Your task to perform on an android device: Empty the shopping cart on amazon.com. Add usb-b to the cart on amazon.com, then select checkout. Image 0: 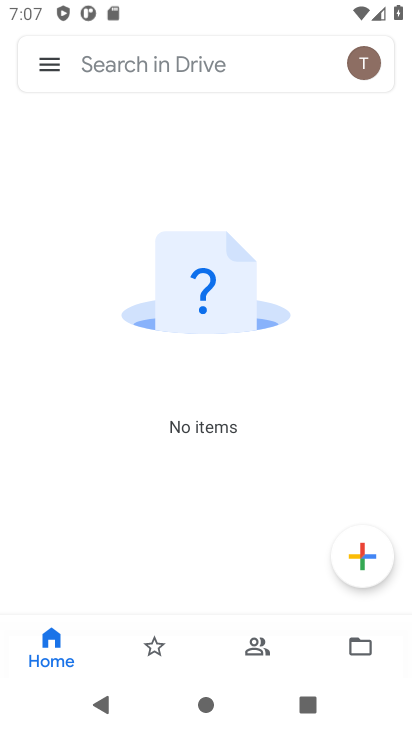
Step 0: press home button
Your task to perform on an android device: Empty the shopping cart on amazon.com. Add usb-b to the cart on amazon.com, then select checkout. Image 1: 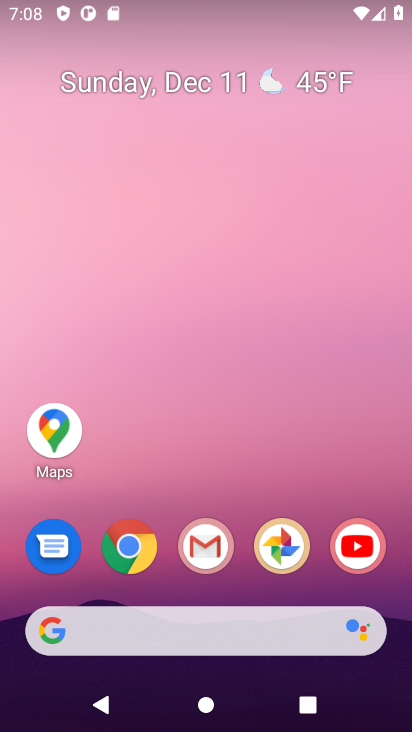
Step 1: click (136, 551)
Your task to perform on an android device: Empty the shopping cart on amazon.com. Add usb-b to the cart on amazon.com, then select checkout. Image 2: 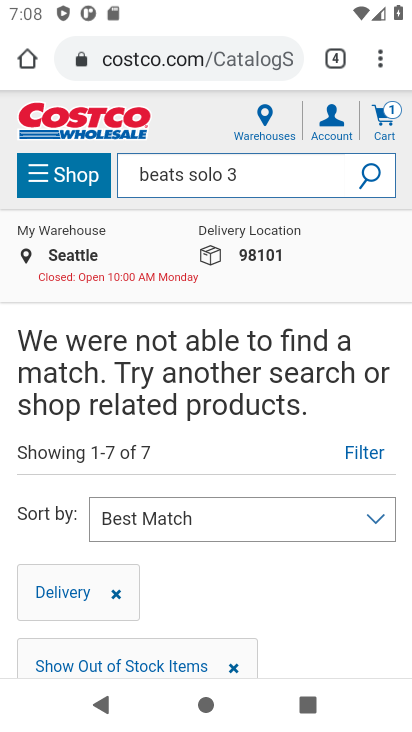
Step 2: click (152, 57)
Your task to perform on an android device: Empty the shopping cart on amazon.com. Add usb-b to the cart on amazon.com, then select checkout. Image 3: 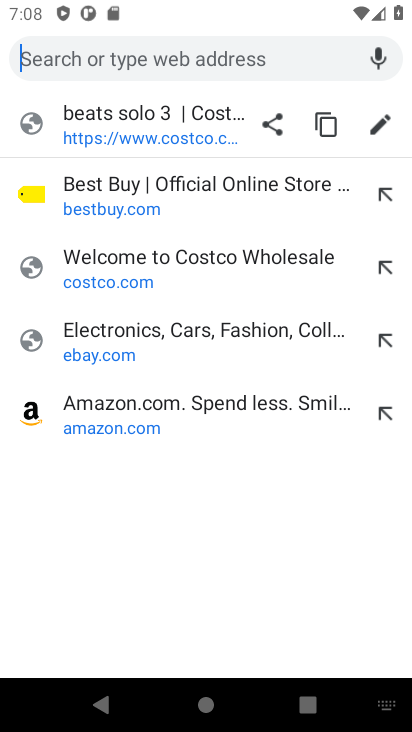
Step 3: click (87, 418)
Your task to perform on an android device: Empty the shopping cart on amazon.com. Add usb-b to the cart on amazon.com, then select checkout. Image 4: 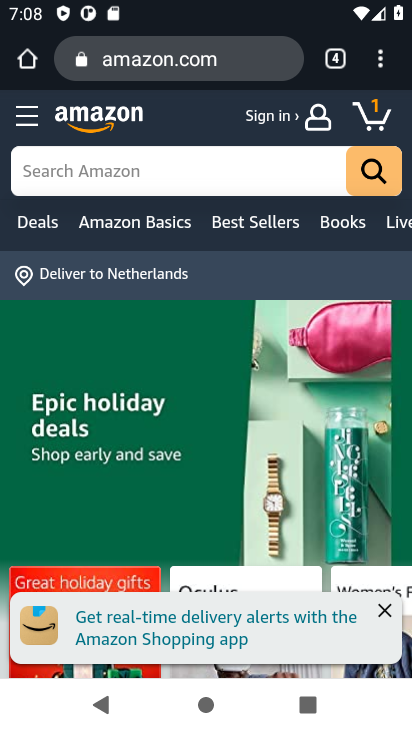
Step 4: click (373, 114)
Your task to perform on an android device: Empty the shopping cart on amazon.com. Add usb-b to the cart on amazon.com, then select checkout. Image 5: 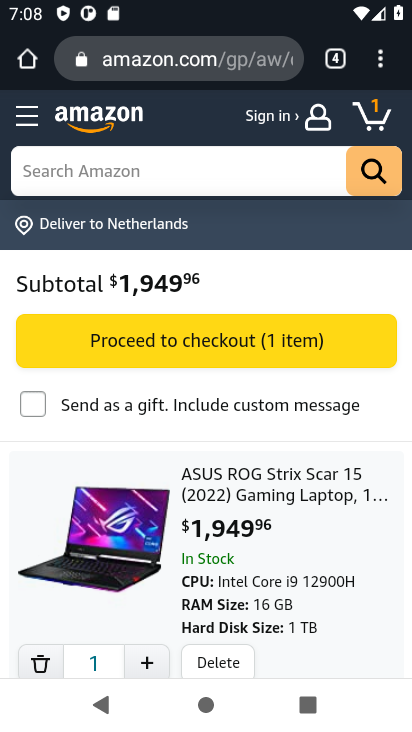
Step 5: click (36, 672)
Your task to perform on an android device: Empty the shopping cart on amazon.com. Add usb-b to the cart on amazon.com, then select checkout. Image 6: 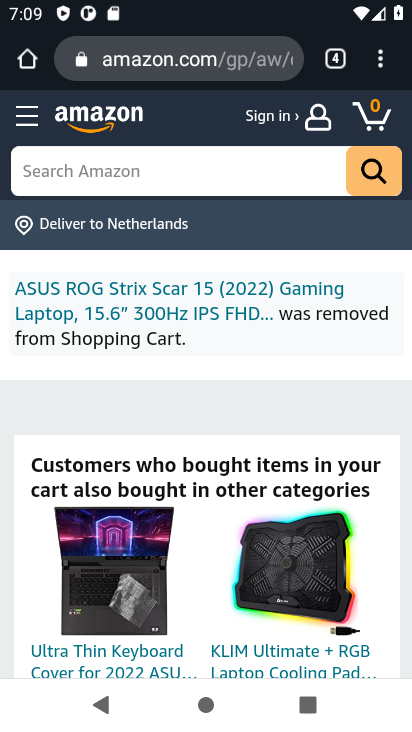
Step 6: drag from (195, 597) to (196, 328)
Your task to perform on an android device: Empty the shopping cart on amazon.com. Add usb-b to the cart on amazon.com, then select checkout. Image 7: 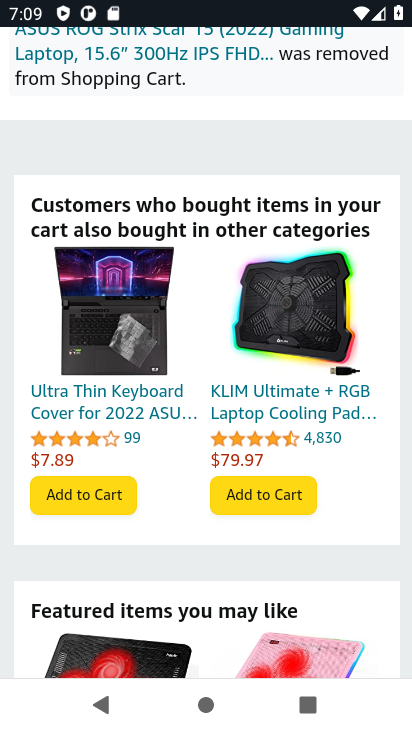
Step 7: drag from (185, 302) to (167, 588)
Your task to perform on an android device: Empty the shopping cart on amazon.com. Add usb-b to the cart on amazon.com, then select checkout. Image 8: 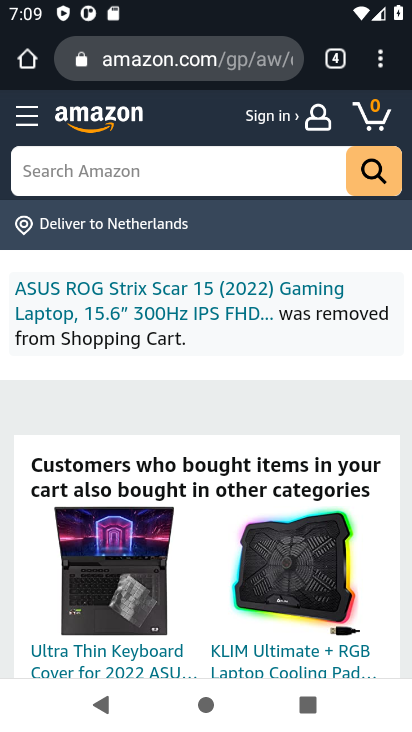
Step 8: click (135, 167)
Your task to perform on an android device: Empty the shopping cart on amazon.com. Add usb-b to the cart on amazon.com, then select checkout. Image 9: 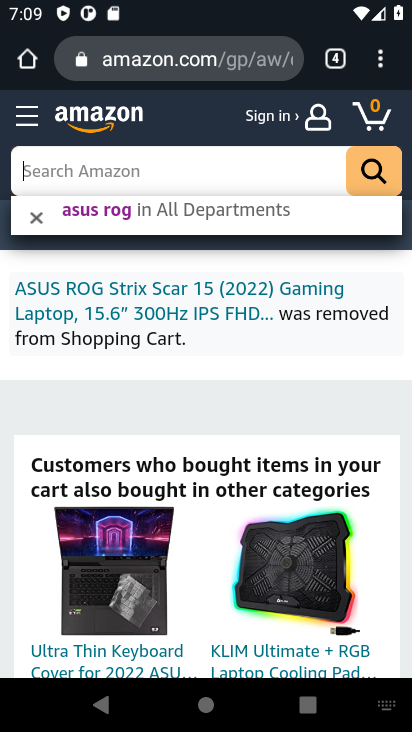
Step 9: type "usb-b"
Your task to perform on an android device: Empty the shopping cart on amazon.com. Add usb-b to the cart on amazon.com, then select checkout. Image 10: 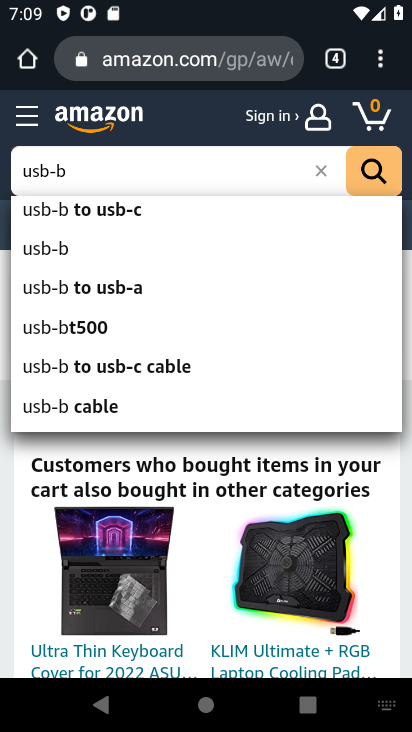
Step 10: click (62, 249)
Your task to perform on an android device: Empty the shopping cart on amazon.com. Add usb-b to the cart on amazon.com, then select checkout. Image 11: 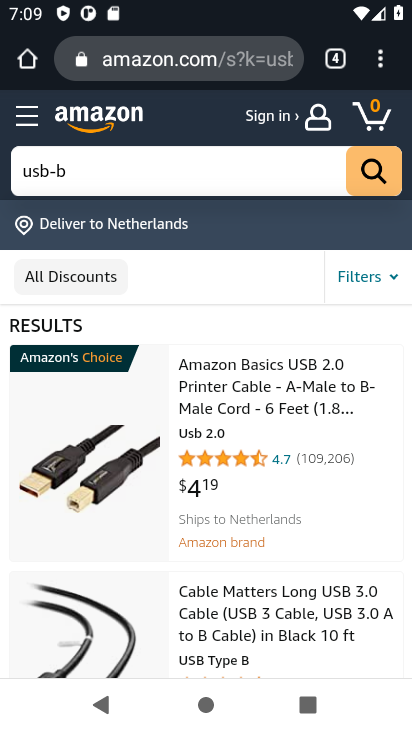
Step 11: drag from (250, 512) to (267, 335)
Your task to perform on an android device: Empty the shopping cart on amazon.com. Add usb-b to the cart on amazon.com, then select checkout. Image 12: 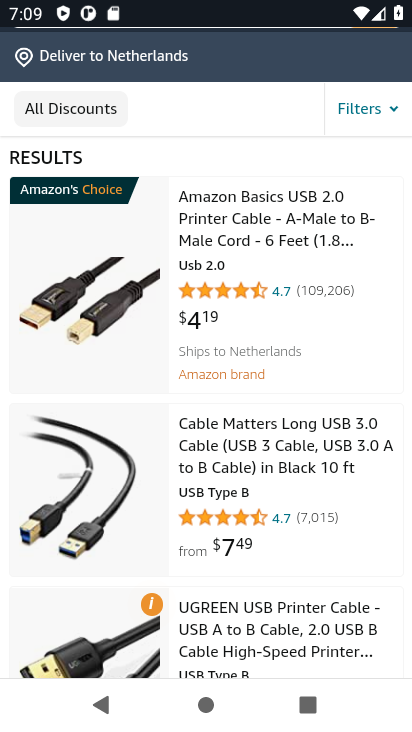
Step 12: drag from (267, 549) to (272, 380)
Your task to perform on an android device: Empty the shopping cart on amazon.com. Add usb-b to the cart on amazon.com, then select checkout. Image 13: 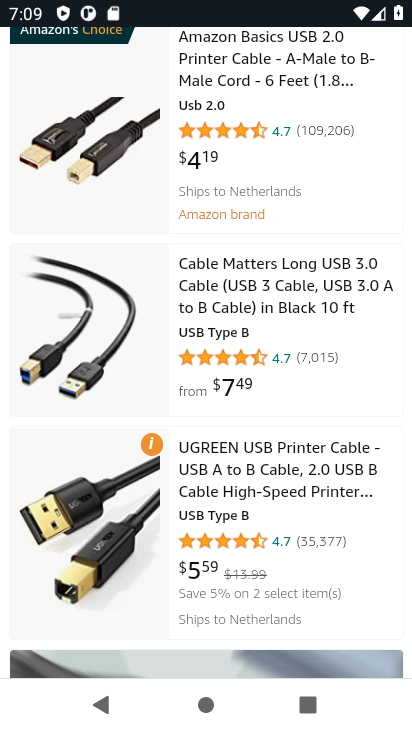
Step 13: click (211, 489)
Your task to perform on an android device: Empty the shopping cart on amazon.com. Add usb-b to the cart on amazon.com, then select checkout. Image 14: 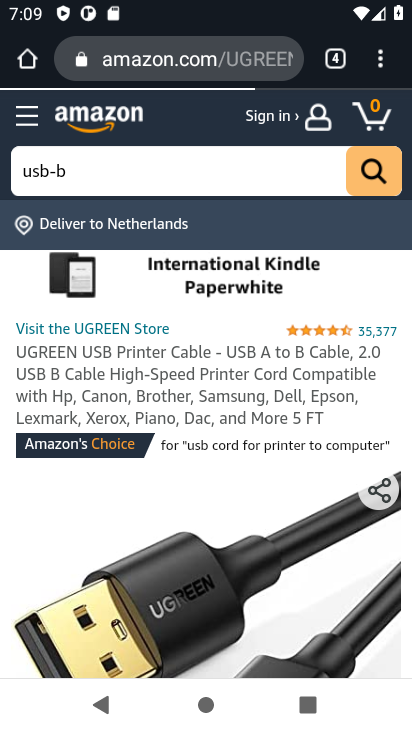
Step 14: click (339, 156)
Your task to perform on an android device: Empty the shopping cart on amazon.com. Add usb-b to the cart on amazon.com, then select checkout. Image 15: 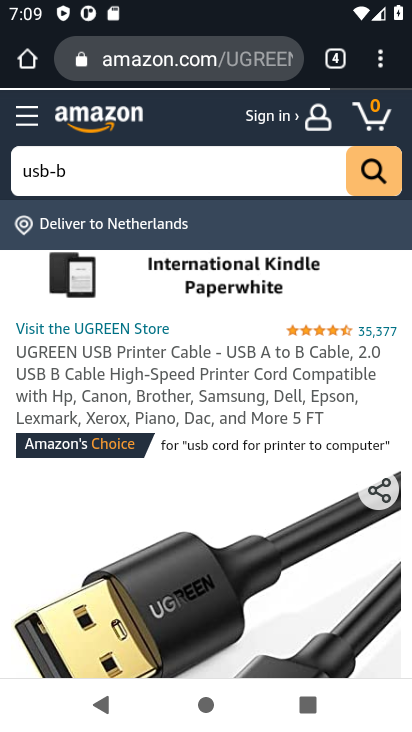
Step 15: drag from (225, 436) to (208, 41)
Your task to perform on an android device: Empty the shopping cart on amazon.com. Add usb-b to the cart on amazon.com, then select checkout. Image 16: 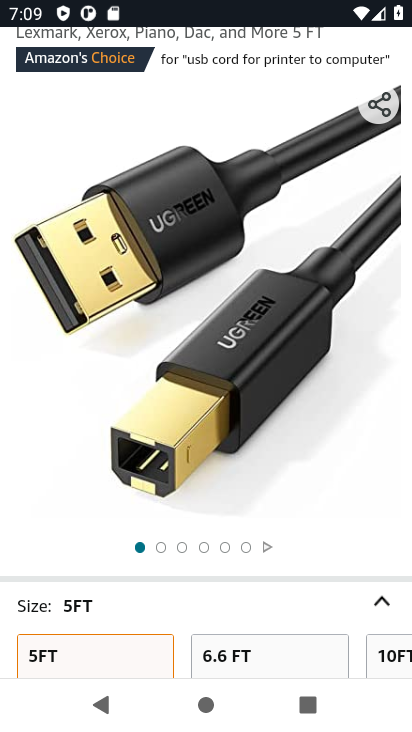
Step 16: drag from (211, 377) to (189, 54)
Your task to perform on an android device: Empty the shopping cart on amazon.com. Add usb-b to the cart on amazon.com, then select checkout. Image 17: 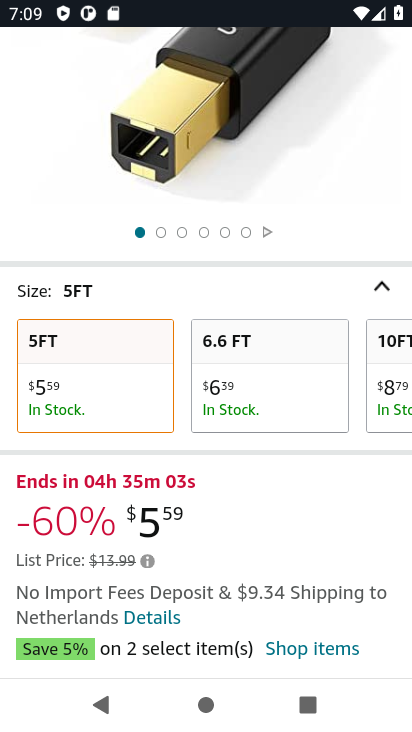
Step 17: drag from (180, 509) to (184, 101)
Your task to perform on an android device: Empty the shopping cart on amazon.com. Add usb-b to the cart on amazon.com, then select checkout. Image 18: 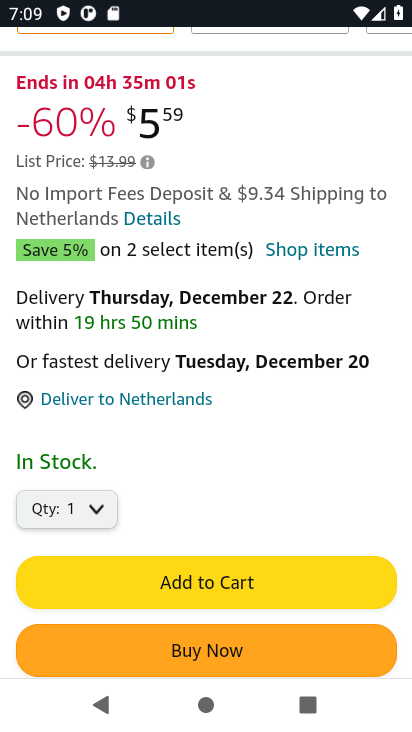
Step 18: click (157, 580)
Your task to perform on an android device: Empty the shopping cart on amazon.com. Add usb-b to the cart on amazon.com, then select checkout. Image 19: 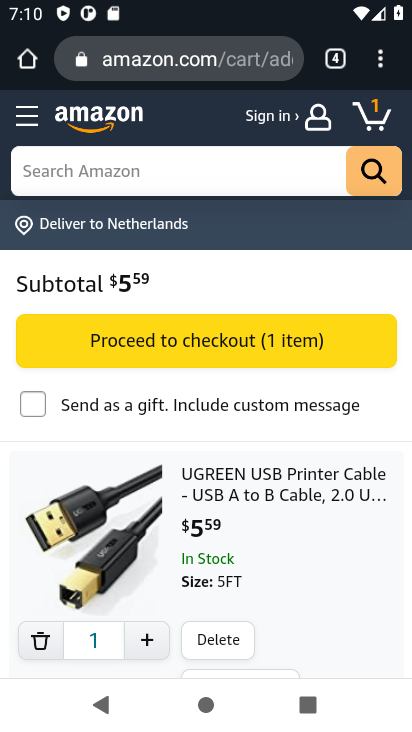
Step 19: click (203, 359)
Your task to perform on an android device: Empty the shopping cart on amazon.com. Add usb-b to the cart on amazon.com, then select checkout. Image 20: 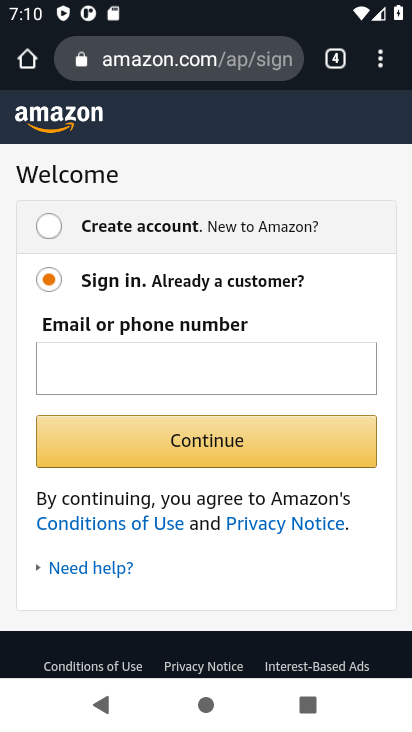
Step 20: task complete